Your task to perform on an android device: Go to calendar. Show me events next week Image 0: 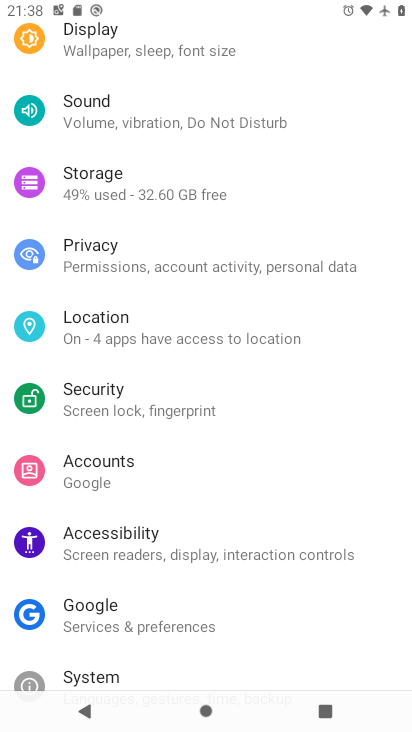
Step 0: press home button
Your task to perform on an android device: Go to calendar. Show me events next week Image 1: 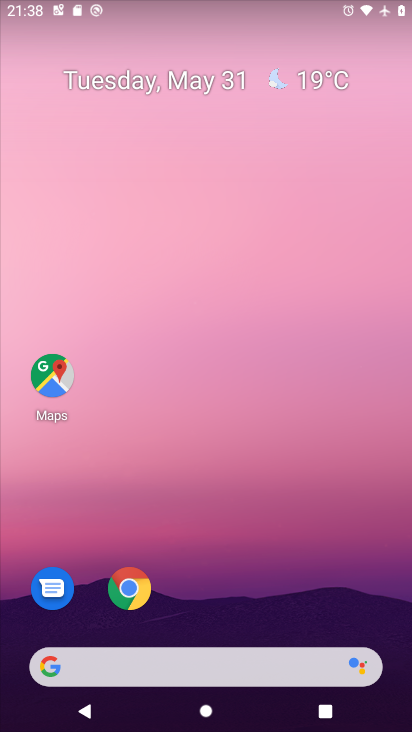
Step 1: drag from (170, 662) to (284, 115)
Your task to perform on an android device: Go to calendar. Show me events next week Image 2: 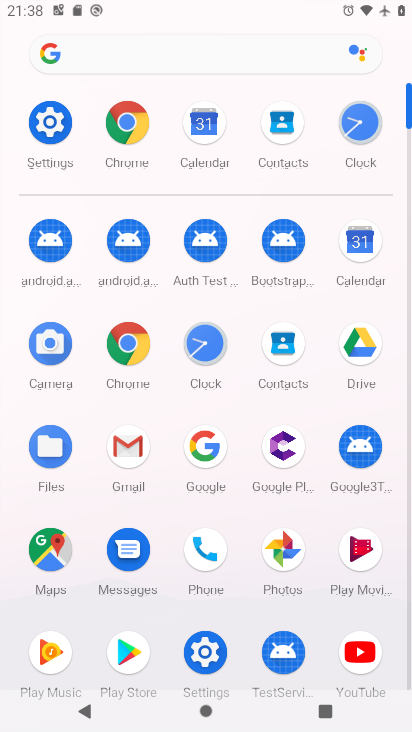
Step 2: click (353, 237)
Your task to perform on an android device: Go to calendar. Show me events next week Image 3: 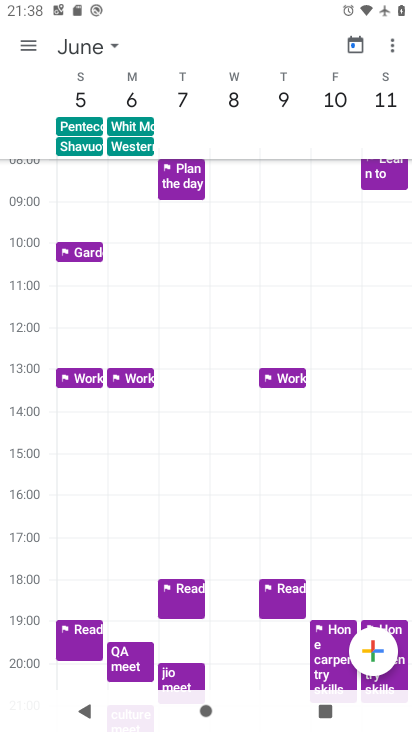
Step 3: click (29, 39)
Your task to perform on an android device: Go to calendar. Show me events next week Image 4: 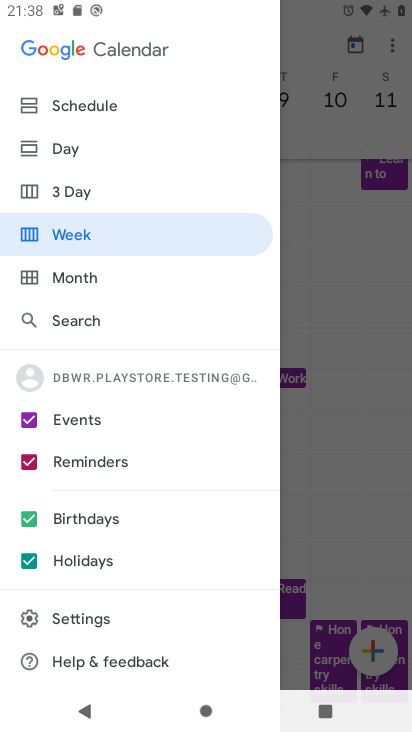
Step 4: click (77, 97)
Your task to perform on an android device: Go to calendar. Show me events next week Image 5: 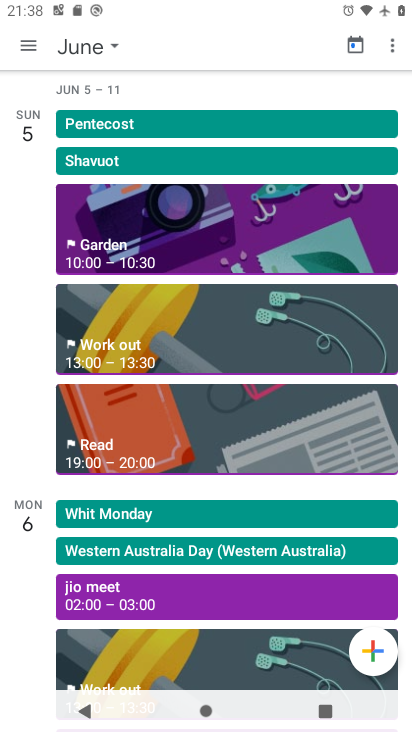
Step 5: click (134, 234)
Your task to perform on an android device: Go to calendar. Show me events next week Image 6: 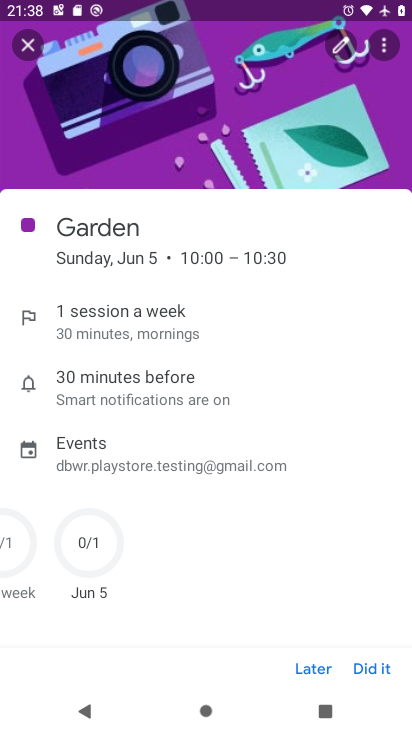
Step 6: task complete